Your task to perform on an android device: Go to privacy settings Image 0: 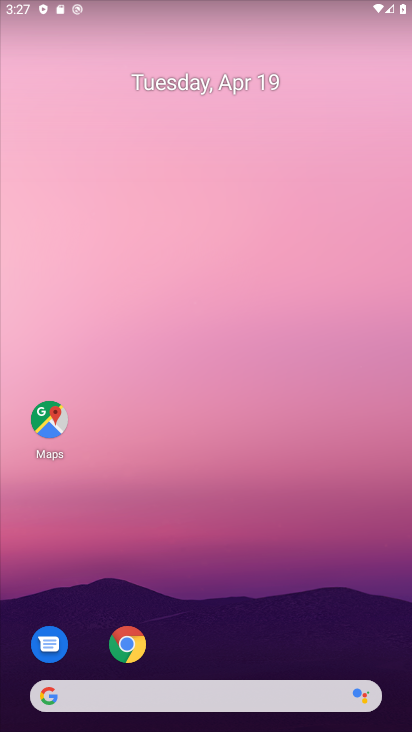
Step 0: click (131, 665)
Your task to perform on an android device: Go to privacy settings Image 1: 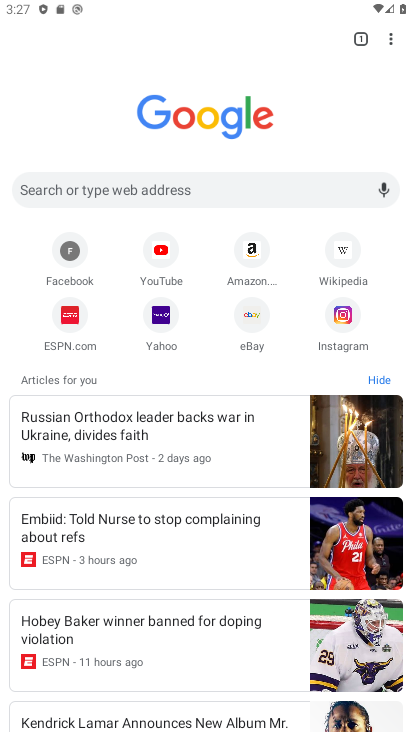
Step 1: click (392, 40)
Your task to perform on an android device: Go to privacy settings Image 2: 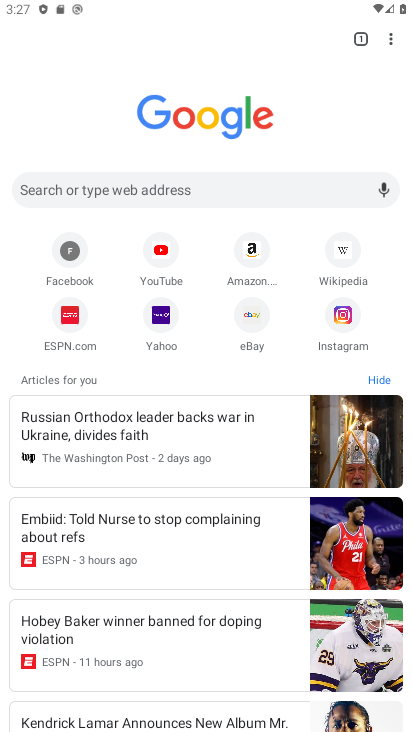
Step 2: drag from (400, 41) to (287, 334)
Your task to perform on an android device: Go to privacy settings Image 3: 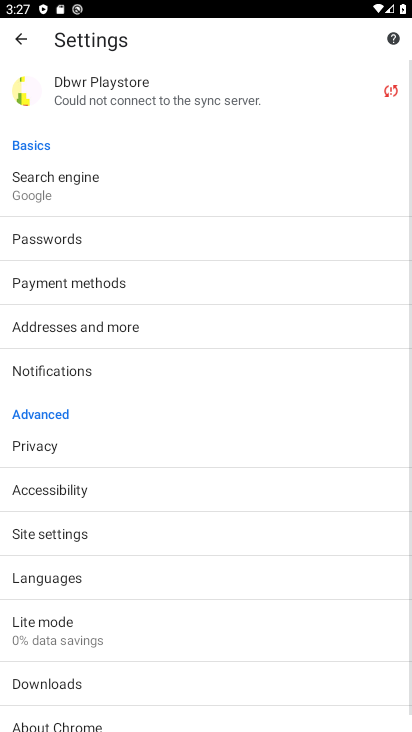
Step 3: drag from (243, 600) to (283, 355)
Your task to perform on an android device: Go to privacy settings Image 4: 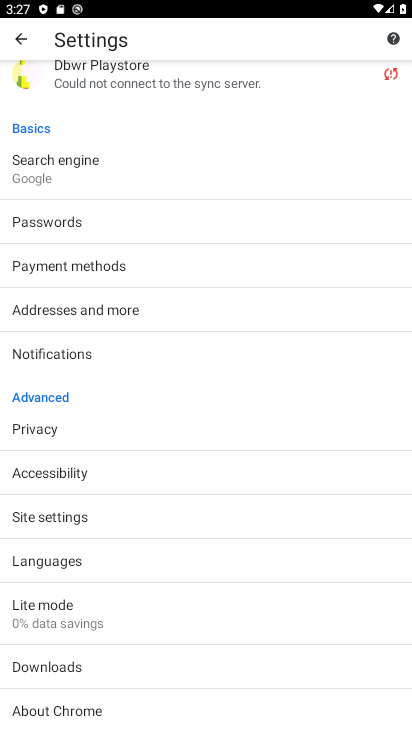
Step 4: click (131, 442)
Your task to perform on an android device: Go to privacy settings Image 5: 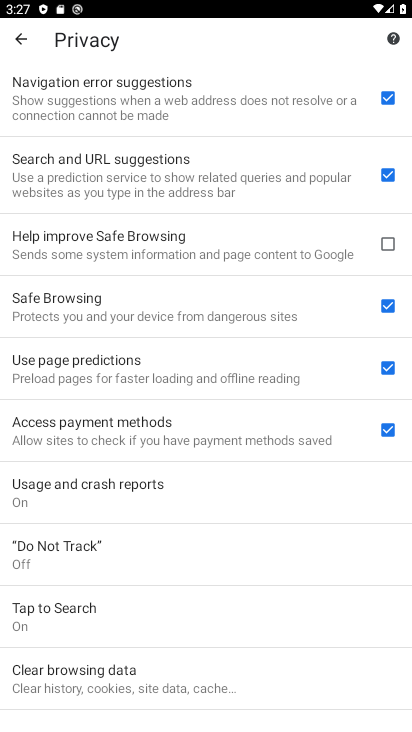
Step 5: task complete